Your task to perform on an android device: change your default location settings in chrome Image 0: 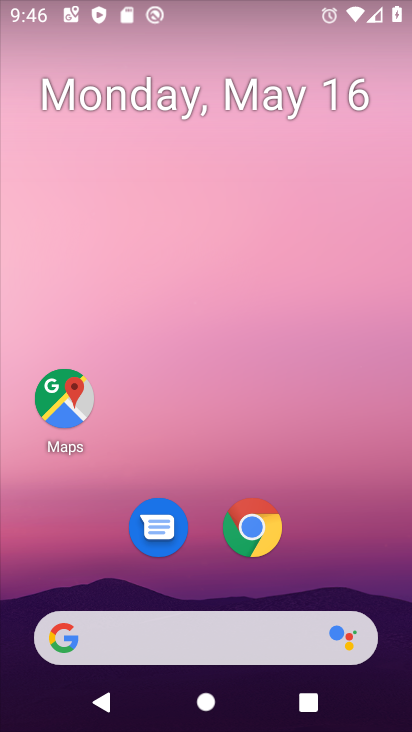
Step 0: click (269, 546)
Your task to perform on an android device: change your default location settings in chrome Image 1: 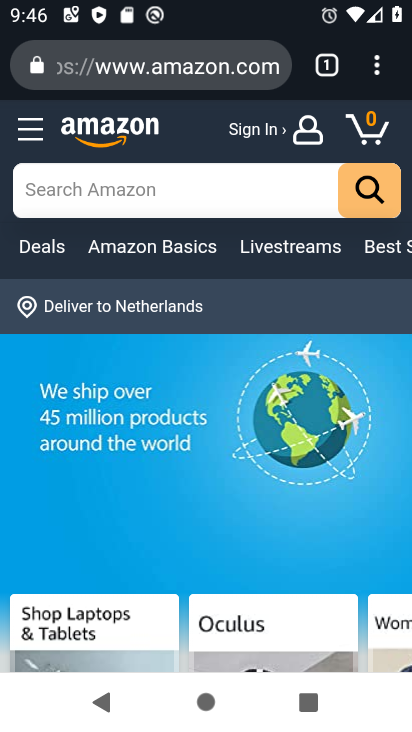
Step 1: click (376, 60)
Your task to perform on an android device: change your default location settings in chrome Image 2: 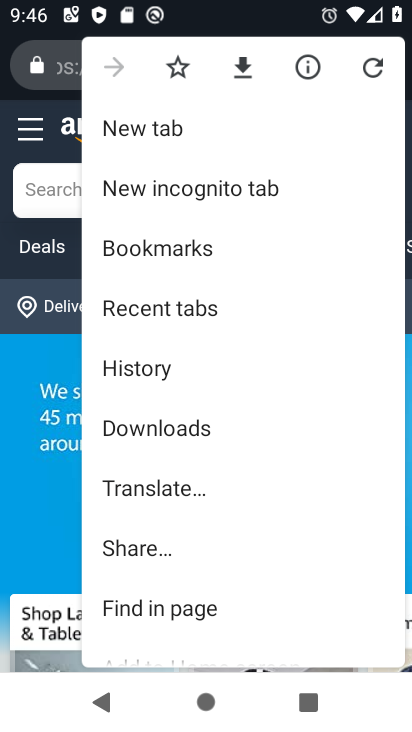
Step 2: drag from (231, 541) to (246, 217)
Your task to perform on an android device: change your default location settings in chrome Image 3: 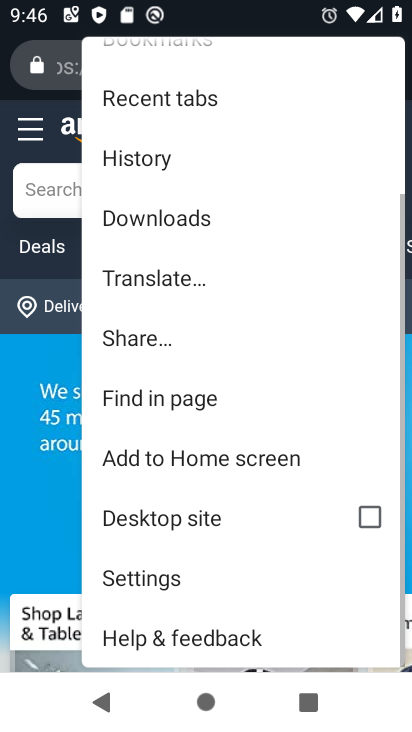
Step 3: click (127, 571)
Your task to perform on an android device: change your default location settings in chrome Image 4: 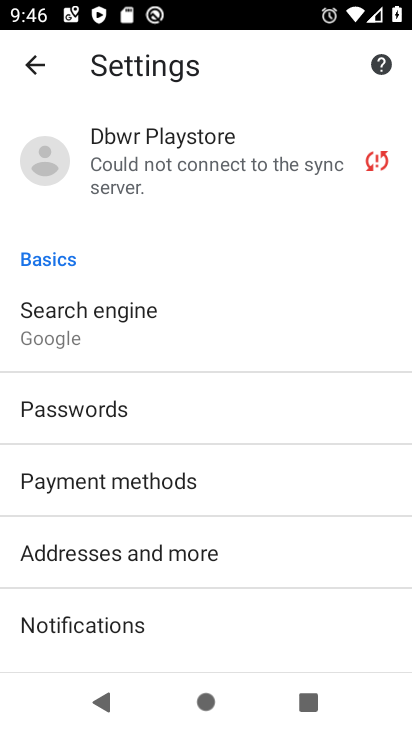
Step 4: drag from (202, 538) to (209, 199)
Your task to perform on an android device: change your default location settings in chrome Image 5: 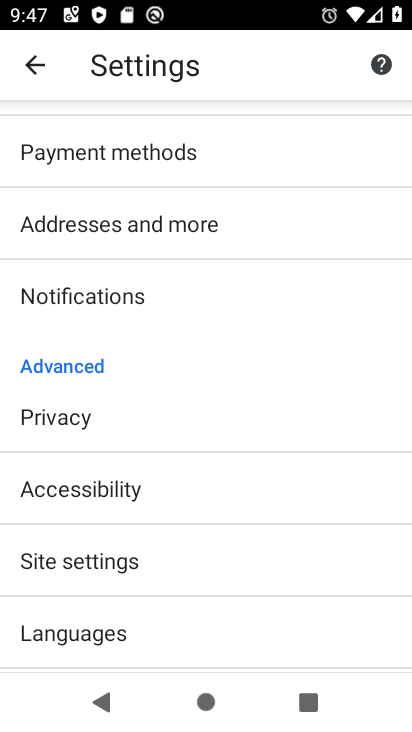
Step 5: click (83, 567)
Your task to perform on an android device: change your default location settings in chrome Image 6: 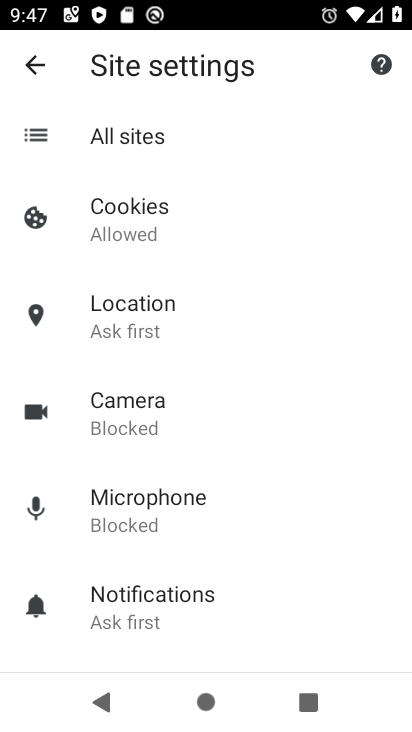
Step 6: click (90, 323)
Your task to perform on an android device: change your default location settings in chrome Image 7: 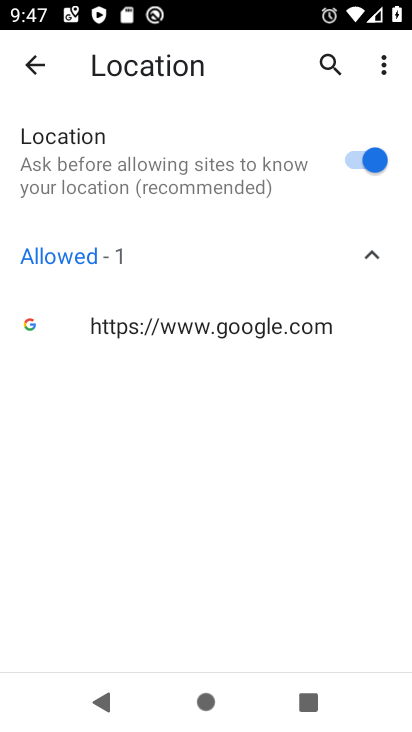
Step 7: click (369, 162)
Your task to perform on an android device: change your default location settings in chrome Image 8: 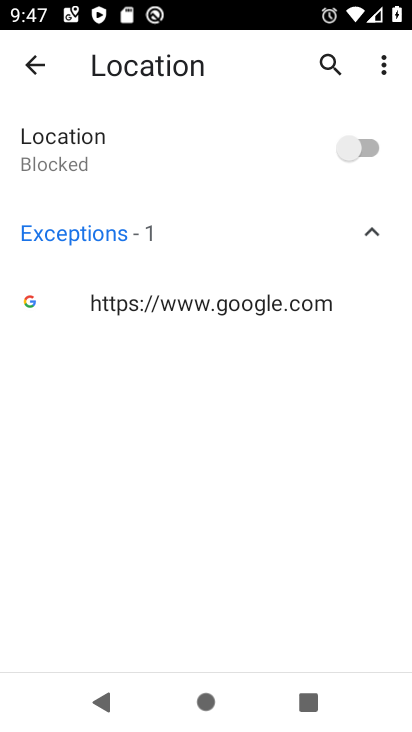
Step 8: task complete